Your task to perform on an android device: Do I have any events tomorrow? Image 0: 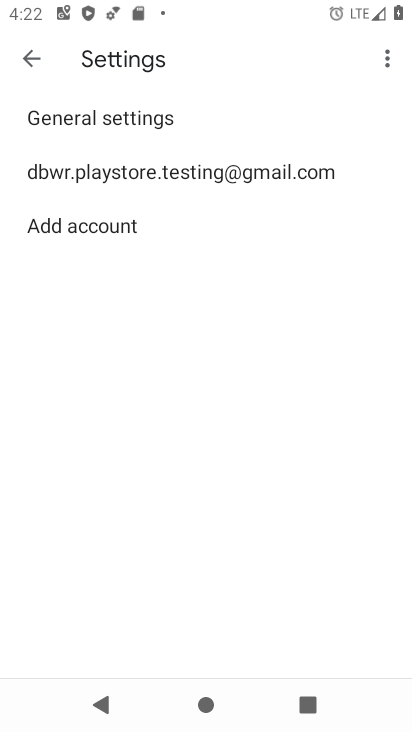
Step 0: press home button
Your task to perform on an android device: Do I have any events tomorrow? Image 1: 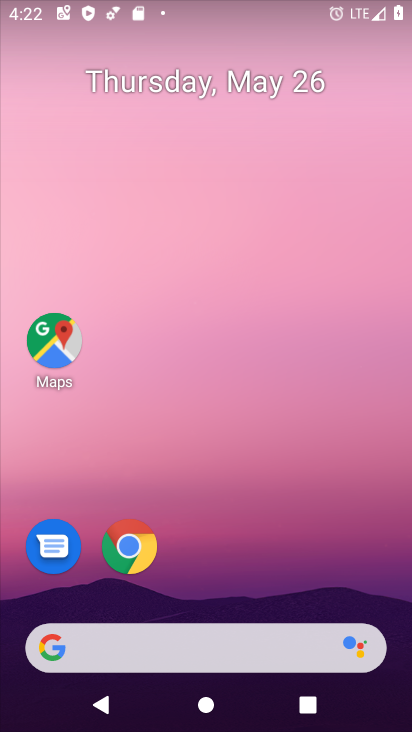
Step 1: drag from (189, 574) to (277, 117)
Your task to perform on an android device: Do I have any events tomorrow? Image 2: 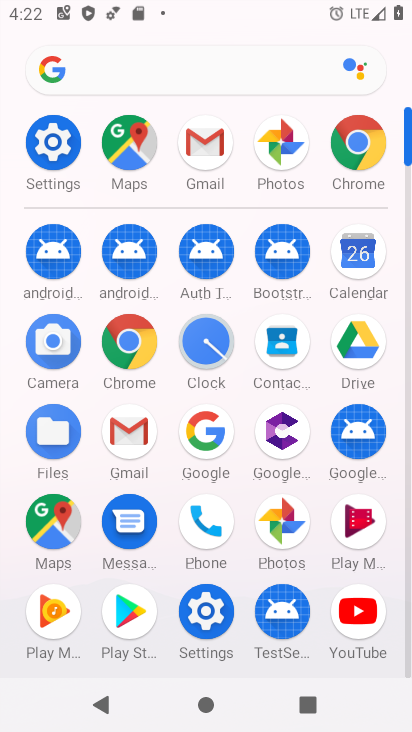
Step 2: click (361, 261)
Your task to perform on an android device: Do I have any events tomorrow? Image 3: 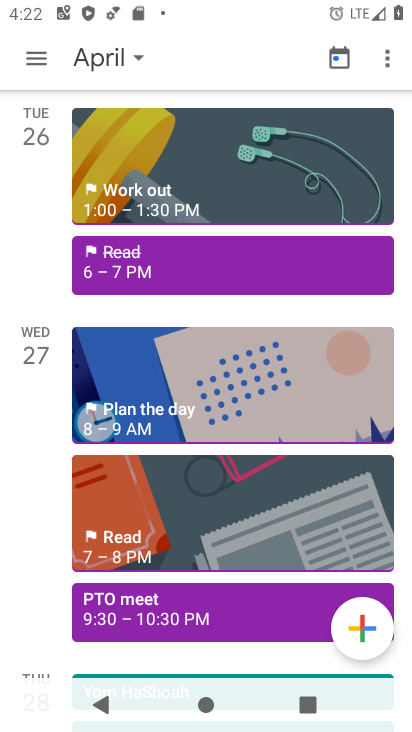
Step 3: click (94, 40)
Your task to perform on an android device: Do I have any events tomorrow? Image 4: 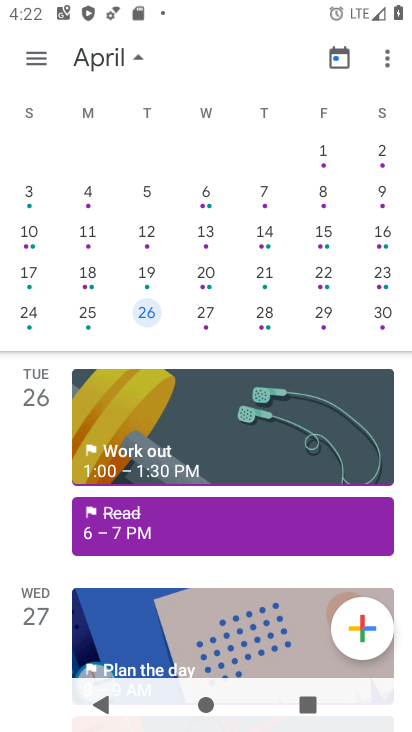
Step 4: drag from (180, 572) to (320, 70)
Your task to perform on an android device: Do I have any events tomorrow? Image 5: 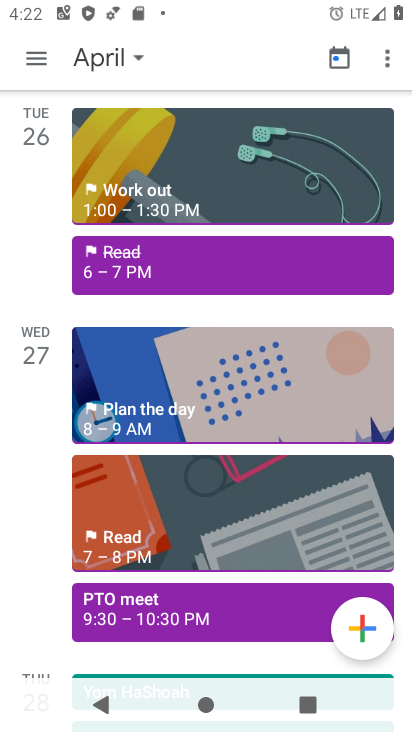
Step 5: click (152, 625)
Your task to perform on an android device: Do I have any events tomorrow? Image 6: 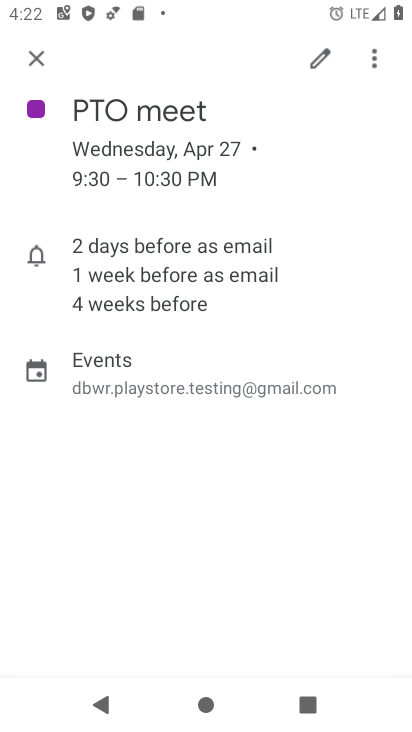
Step 6: task complete